Your task to perform on an android device: turn on the 12-hour format for clock Image 0: 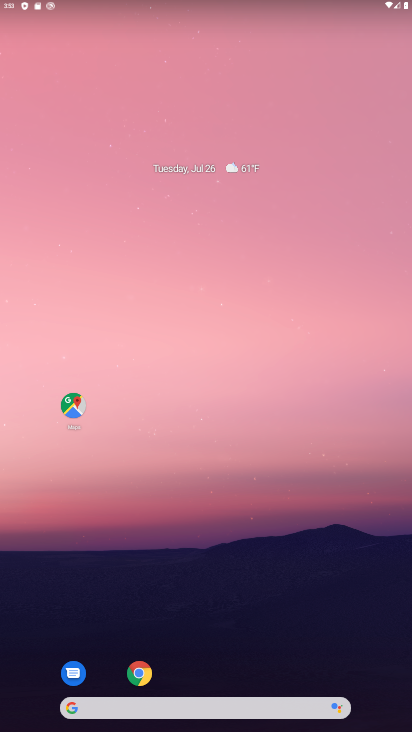
Step 0: press home button
Your task to perform on an android device: turn on the 12-hour format for clock Image 1: 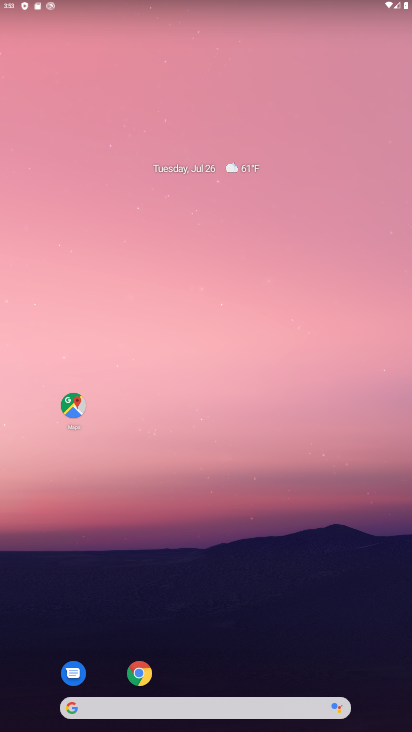
Step 1: drag from (200, 675) to (232, 16)
Your task to perform on an android device: turn on the 12-hour format for clock Image 2: 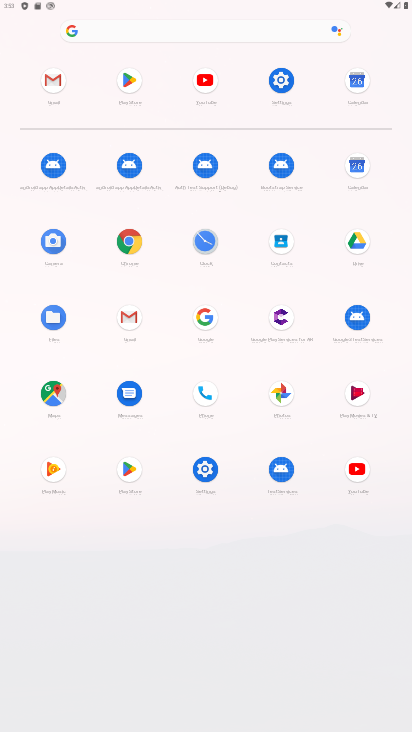
Step 2: click (204, 235)
Your task to perform on an android device: turn on the 12-hour format for clock Image 3: 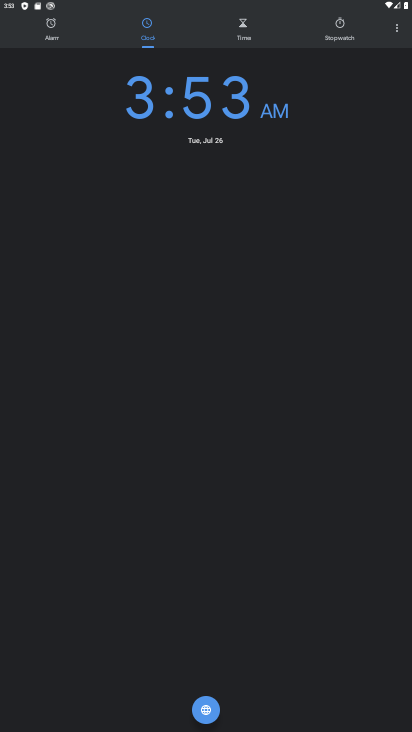
Step 3: click (394, 27)
Your task to perform on an android device: turn on the 12-hour format for clock Image 4: 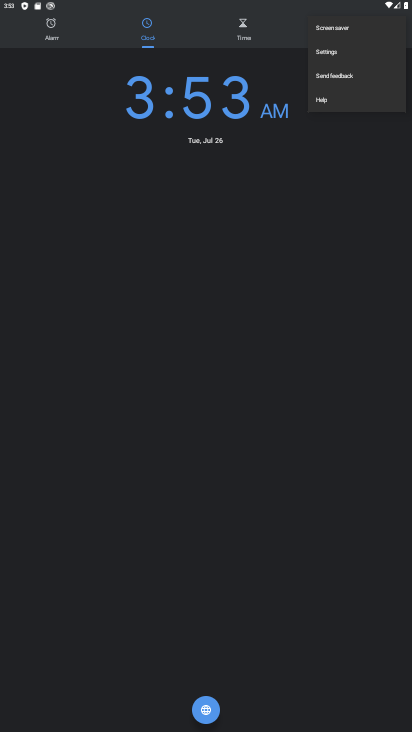
Step 4: click (341, 52)
Your task to perform on an android device: turn on the 12-hour format for clock Image 5: 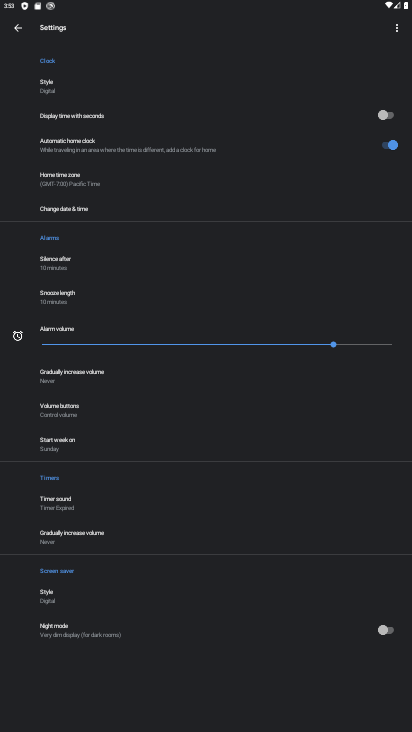
Step 5: click (97, 213)
Your task to perform on an android device: turn on the 12-hour format for clock Image 6: 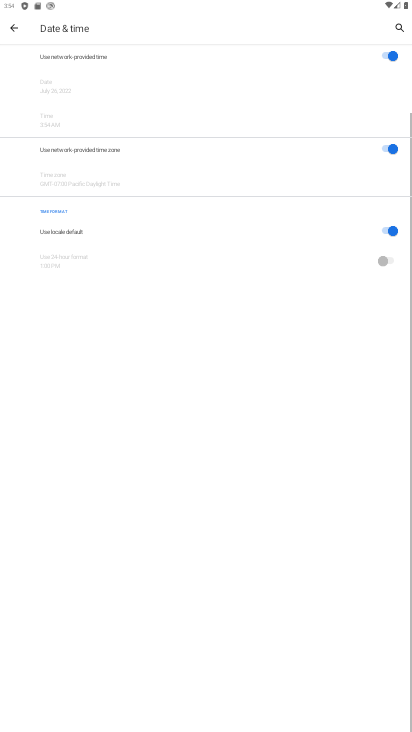
Step 6: task complete